Your task to perform on an android device: see tabs open on other devices in the chrome app Image 0: 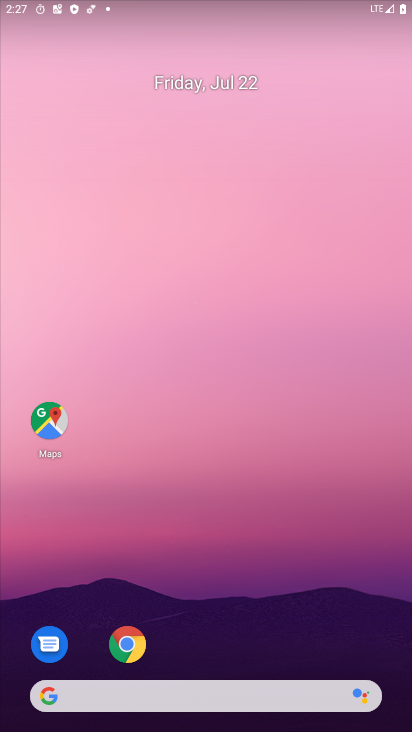
Step 0: drag from (215, 639) to (290, 129)
Your task to perform on an android device: see tabs open on other devices in the chrome app Image 1: 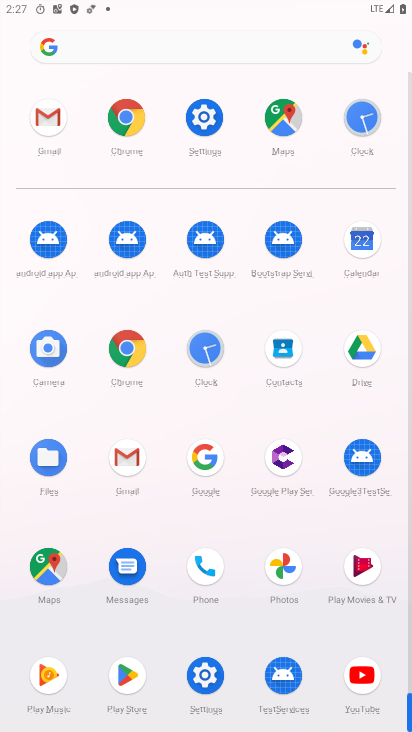
Step 1: click (123, 137)
Your task to perform on an android device: see tabs open on other devices in the chrome app Image 2: 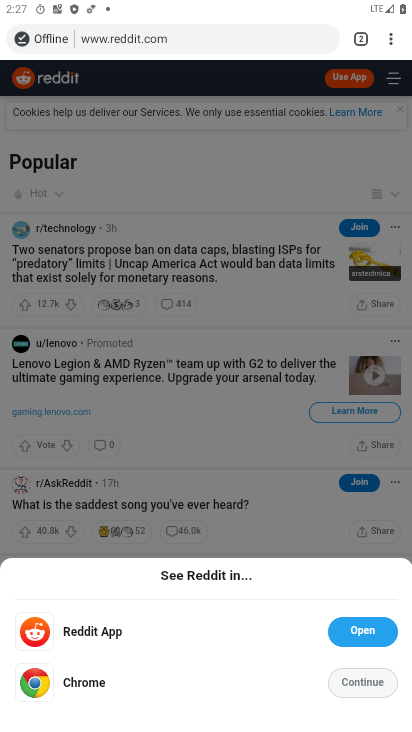
Step 2: task complete